Your task to perform on an android device: set the stopwatch Image 0: 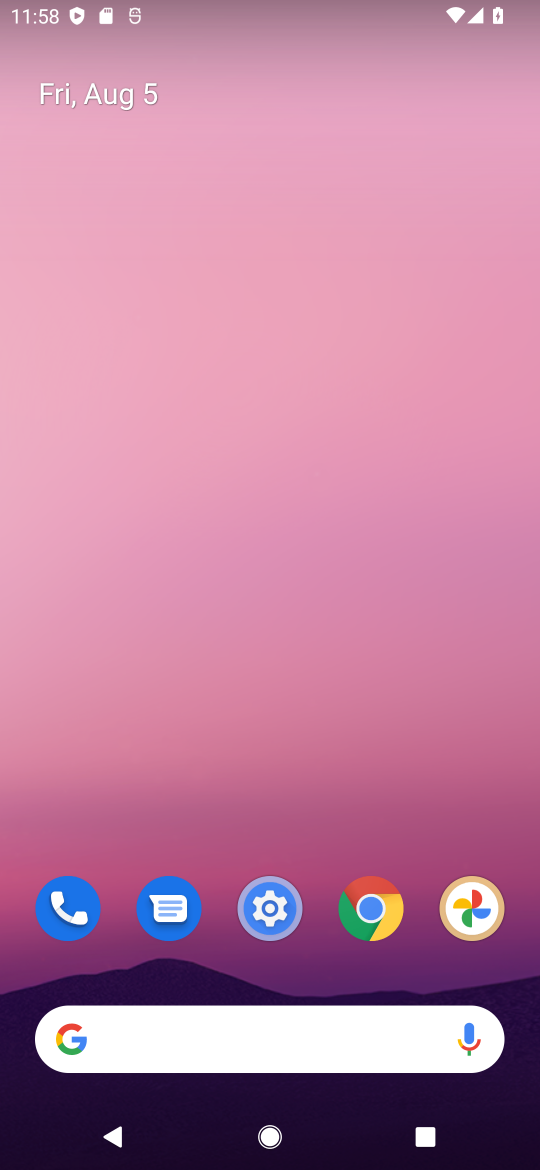
Step 0: drag from (361, 823) to (344, 1)
Your task to perform on an android device: set the stopwatch Image 1: 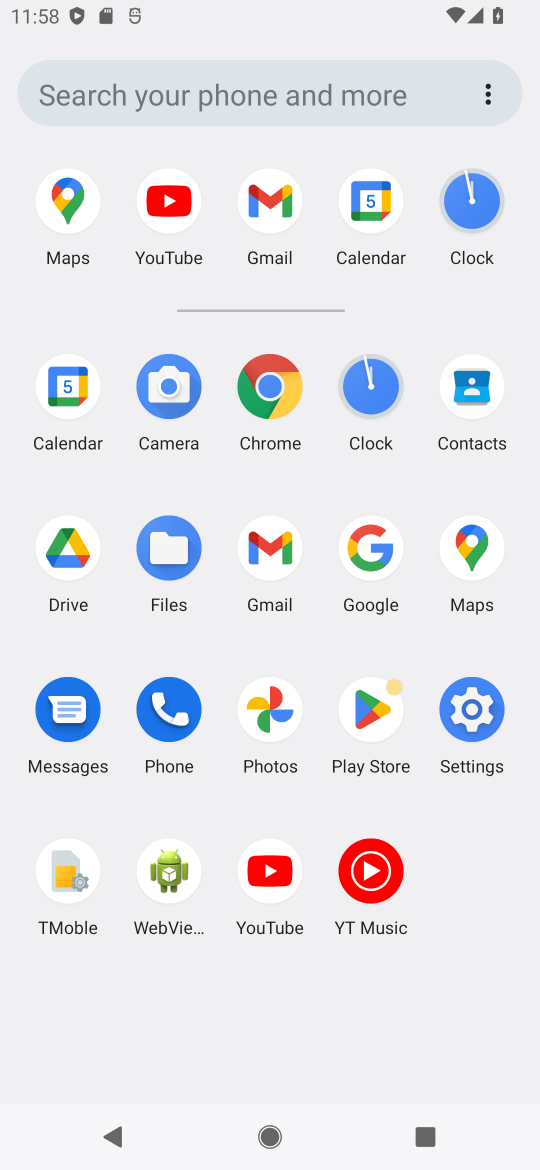
Step 1: click (388, 395)
Your task to perform on an android device: set the stopwatch Image 2: 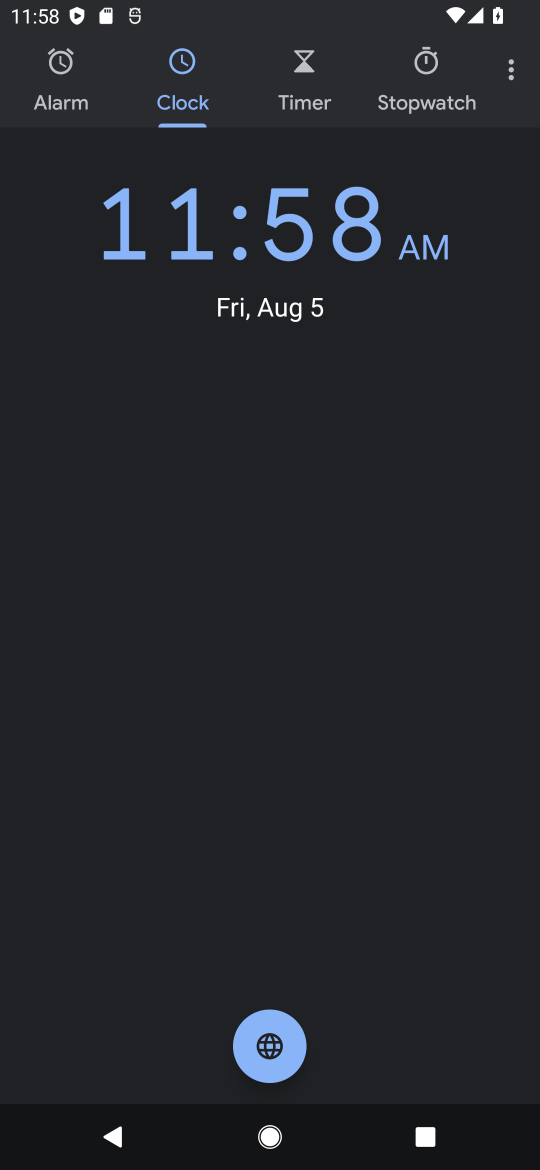
Step 2: click (409, 111)
Your task to perform on an android device: set the stopwatch Image 3: 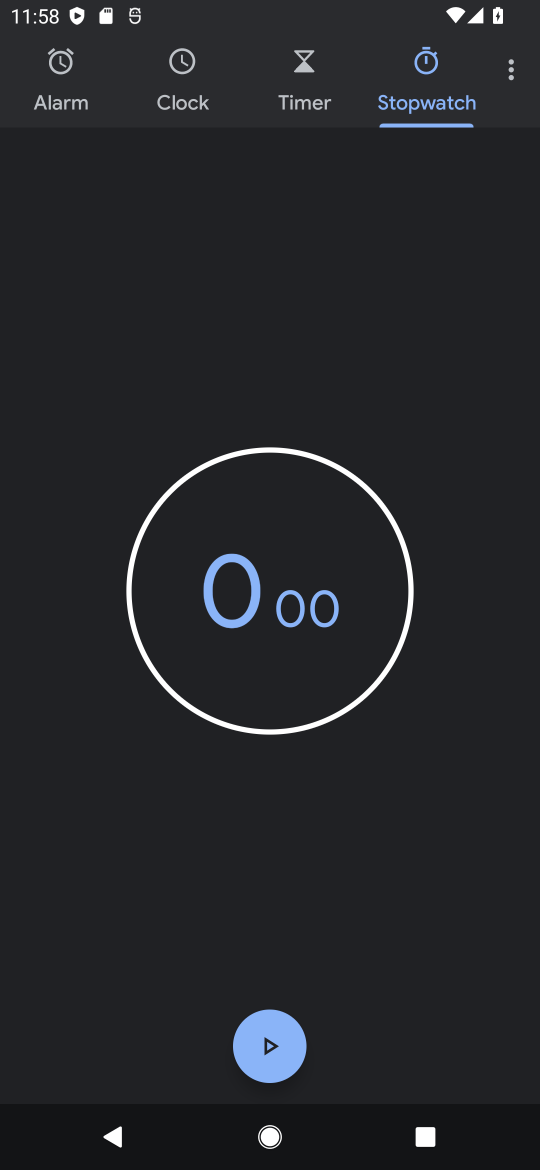
Step 3: click (279, 1041)
Your task to perform on an android device: set the stopwatch Image 4: 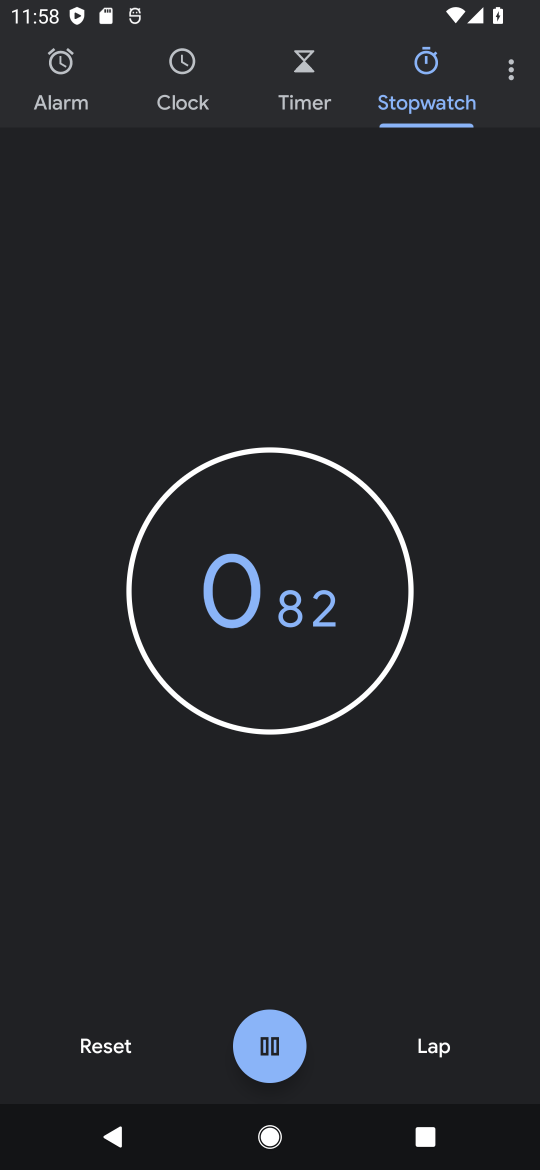
Step 4: click (279, 1039)
Your task to perform on an android device: set the stopwatch Image 5: 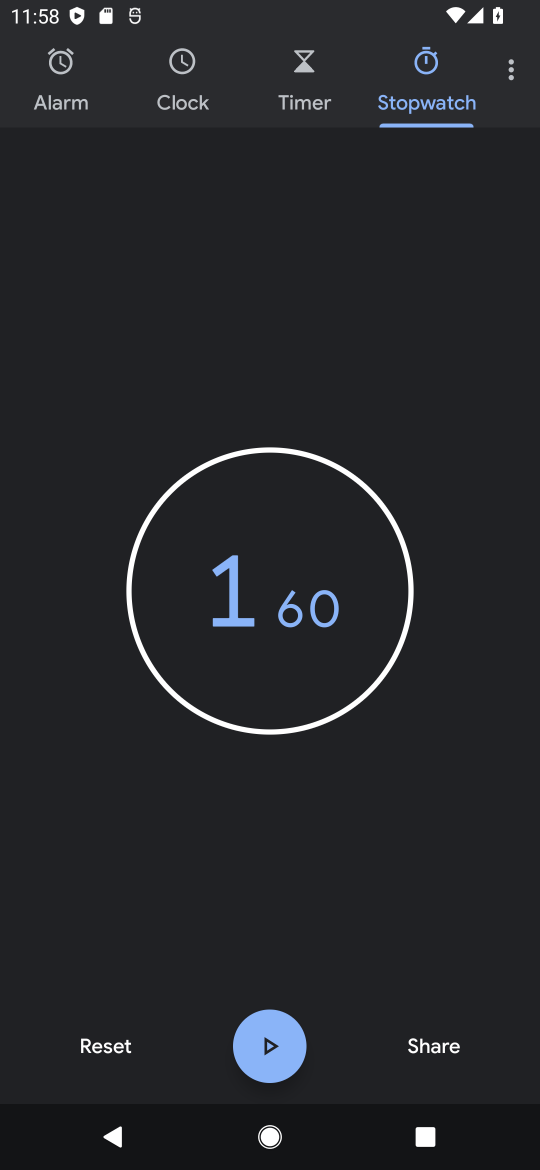
Step 5: task complete